Your task to perform on an android device: show emergency info Image 0: 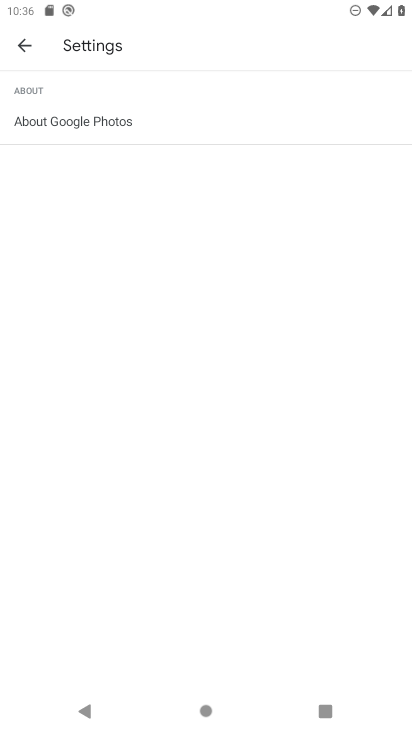
Step 0: press home button
Your task to perform on an android device: show emergency info Image 1: 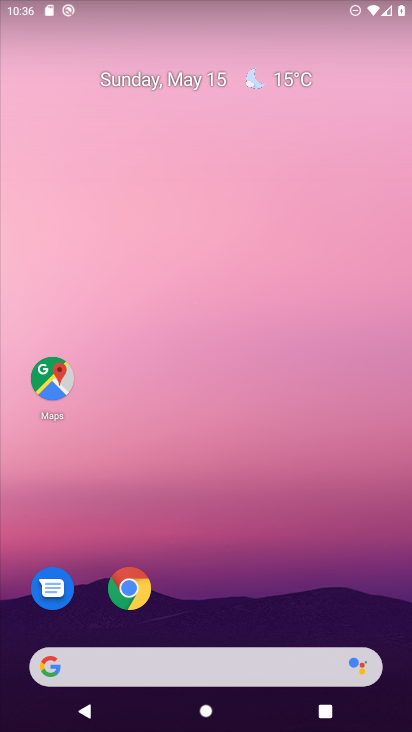
Step 1: drag from (197, 626) to (255, 193)
Your task to perform on an android device: show emergency info Image 2: 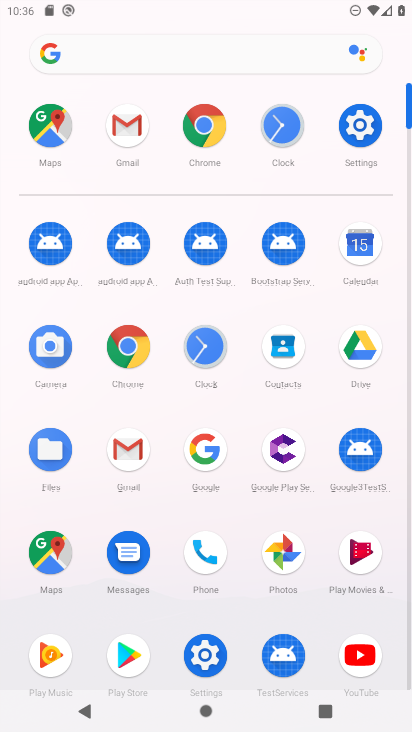
Step 2: click (197, 656)
Your task to perform on an android device: show emergency info Image 3: 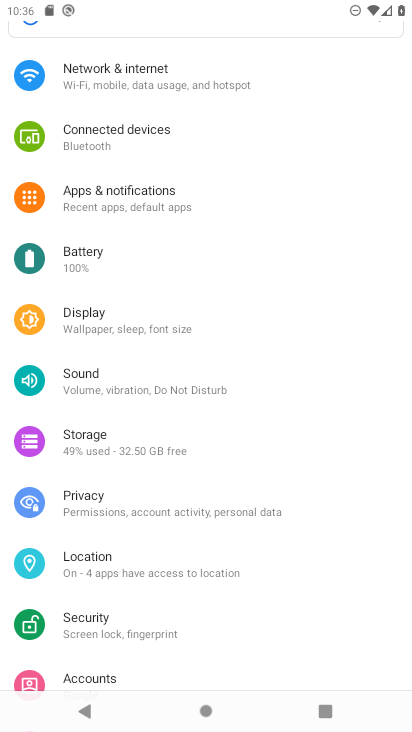
Step 3: drag from (112, 625) to (195, 284)
Your task to perform on an android device: show emergency info Image 4: 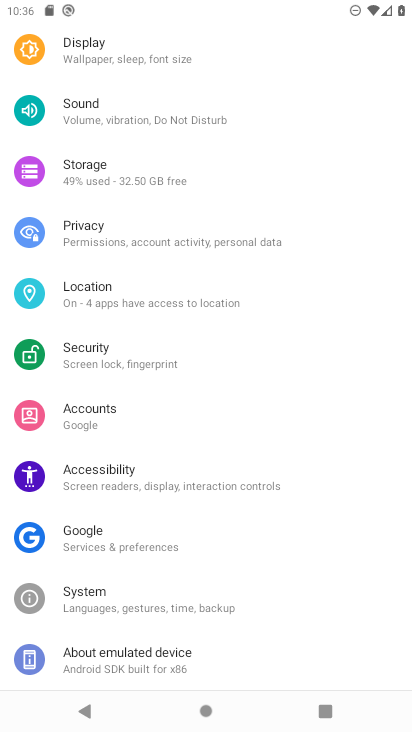
Step 4: drag from (109, 658) to (151, 386)
Your task to perform on an android device: show emergency info Image 5: 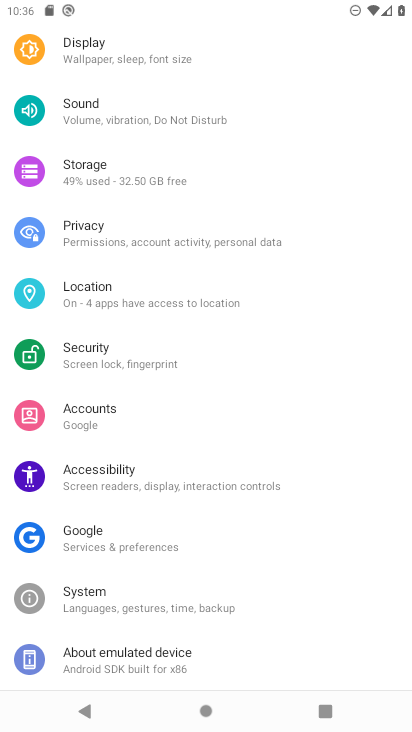
Step 5: click (117, 671)
Your task to perform on an android device: show emergency info Image 6: 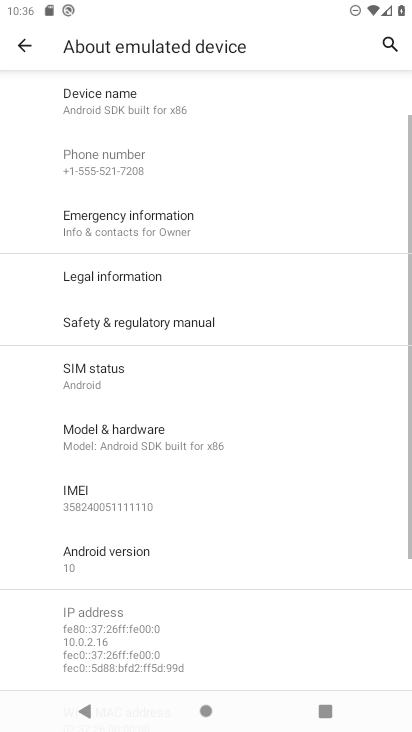
Step 6: click (101, 219)
Your task to perform on an android device: show emergency info Image 7: 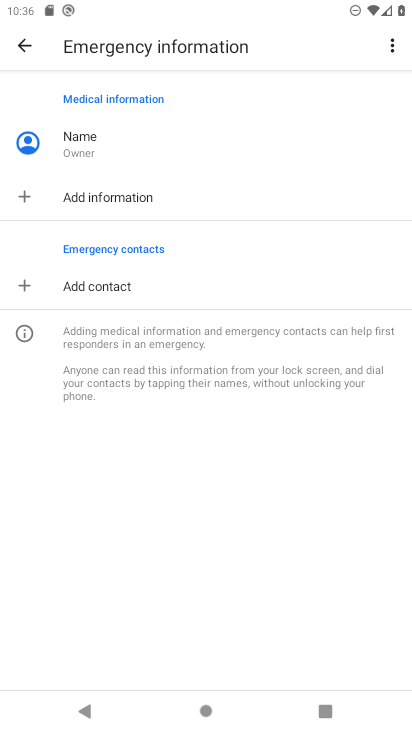
Step 7: task complete